Your task to perform on an android device: Open eBay Image 0: 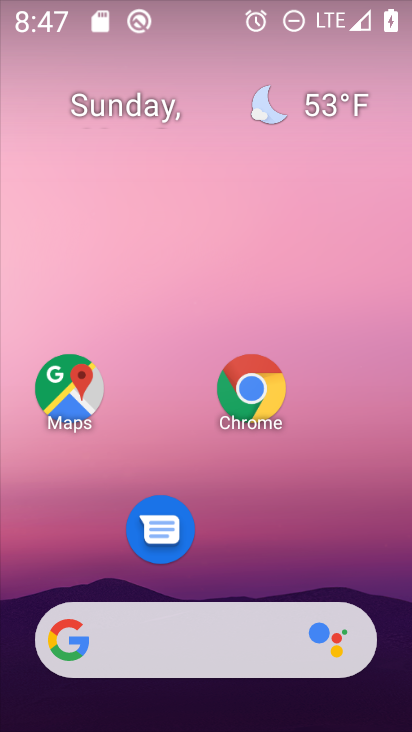
Step 0: click (268, 397)
Your task to perform on an android device: Open eBay Image 1: 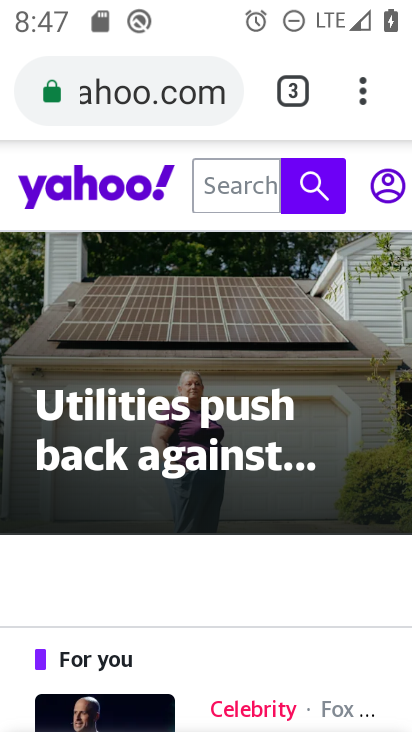
Step 1: drag from (205, 197) to (217, 511)
Your task to perform on an android device: Open eBay Image 2: 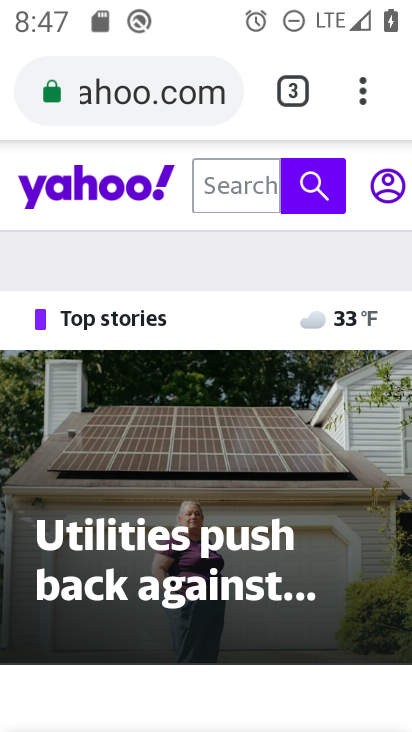
Step 2: click (160, 88)
Your task to perform on an android device: Open eBay Image 3: 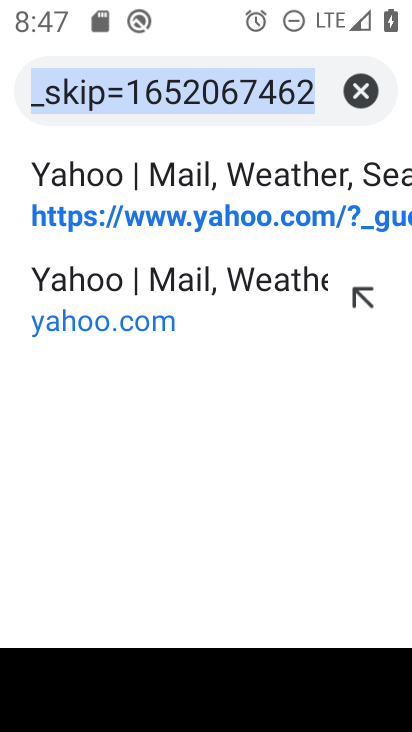
Step 3: type "eBay"
Your task to perform on an android device: Open eBay Image 4: 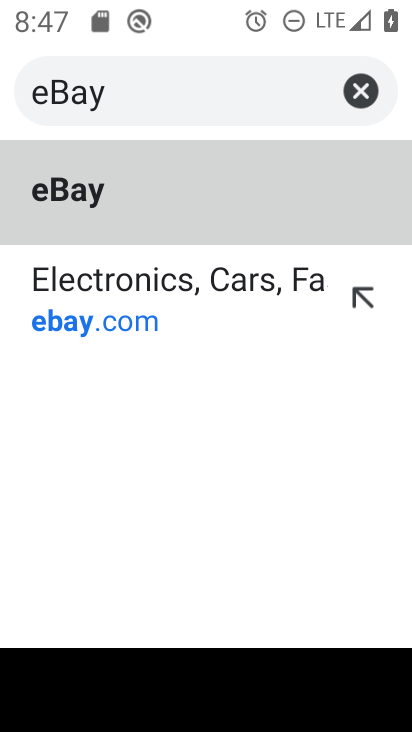
Step 4: click (214, 207)
Your task to perform on an android device: Open eBay Image 5: 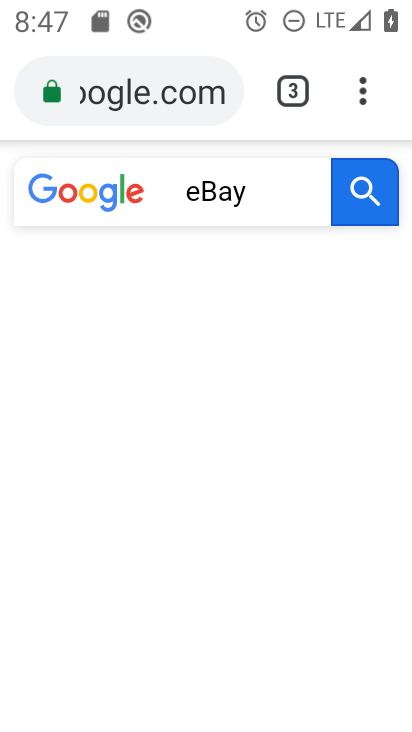
Step 5: task complete